Your task to perform on an android device: Open Google Image 0: 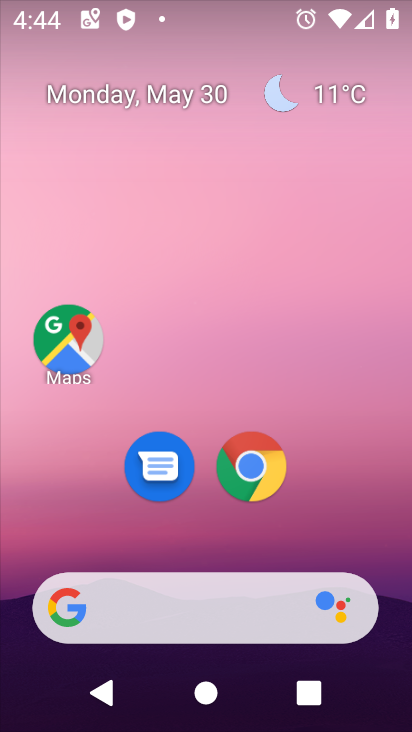
Step 0: drag from (367, 444) to (288, 72)
Your task to perform on an android device: Open Google Image 1: 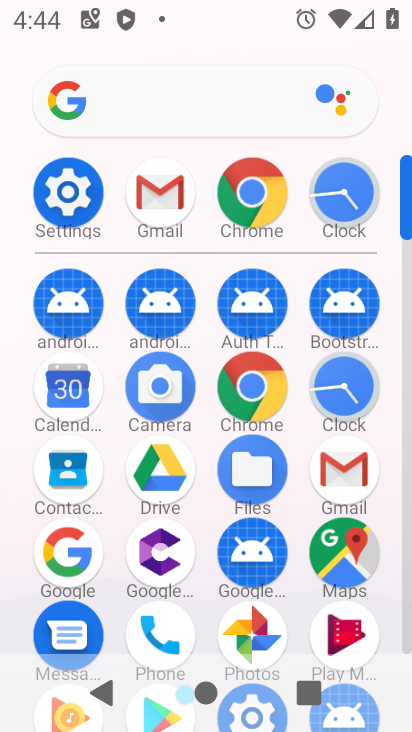
Step 1: click (66, 544)
Your task to perform on an android device: Open Google Image 2: 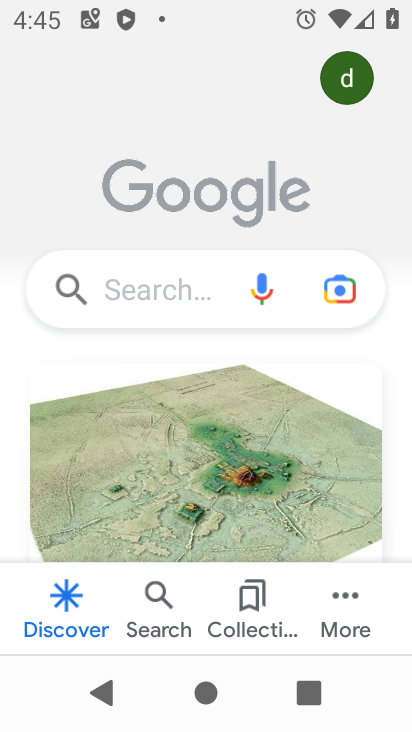
Step 2: task complete